Your task to perform on an android device: open chrome and create a bookmark for the current page Image 0: 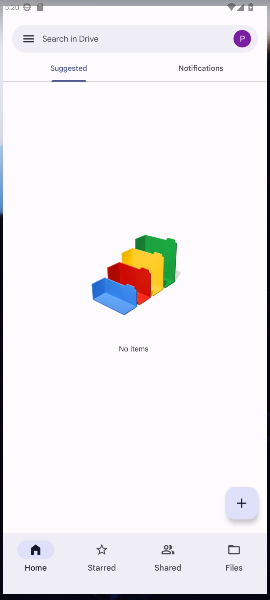
Step 0: press home button
Your task to perform on an android device: open chrome and create a bookmark for the current page Image 1: 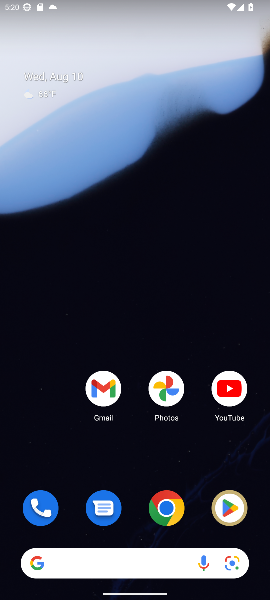
Step 1: click (170, 500)
Your task to perform on an android device: open chrome and create a bookmark for the current page Image 2: 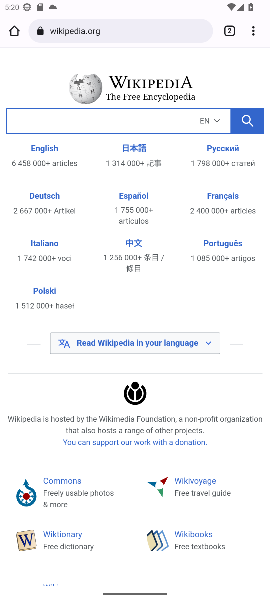
Step 2: drag from (253, 28) to (158, 33)
Your task to perform on an android device: open chrome and create a bookmark for the current page Image 3: 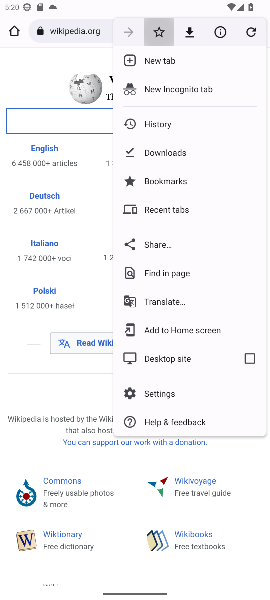
Step 3: click (158, 33)
Your task to perform on an android device: open chrome and create a bookmark for the current page Image 4: 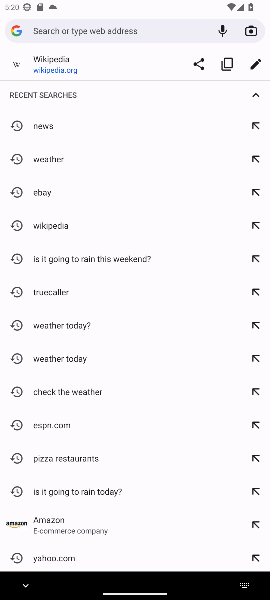
Step 4: task complete